Your task to perform on an android device: turn smart compose on in the gmail app Image 0: 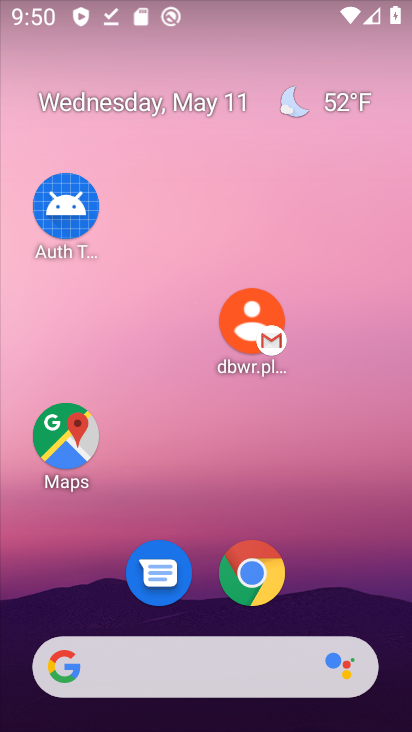
Step 0: drag from (349, 601) to (153, 82)
Your task to perform on an android device: turn smart compose on in the gmail app Image 1: 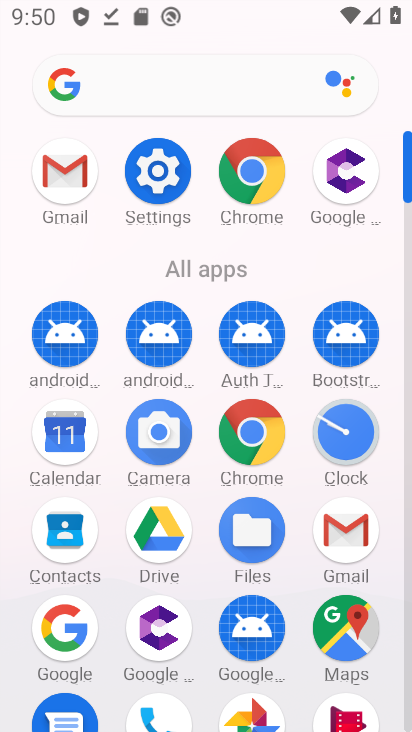
Step 1: click (351, 533)
Your task to perform on an android device: turn smart compose on in the gmail app Image 2: 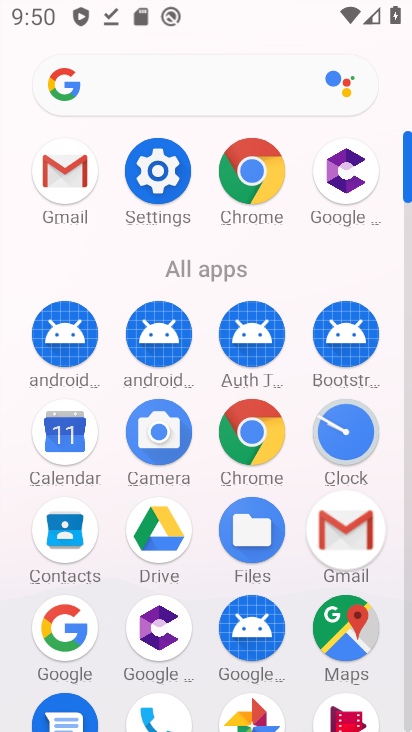
Step 2: click (349, 528)
Your task to perform on an android device: turn smart compose on in the gmail app Image 3: 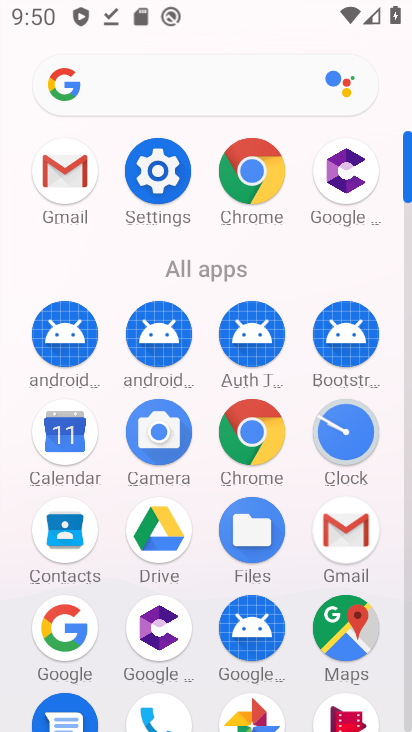
Step 3: click (349, 519)
Your task to perform on an android device: turn smart compose on in the gmail app Image 4: 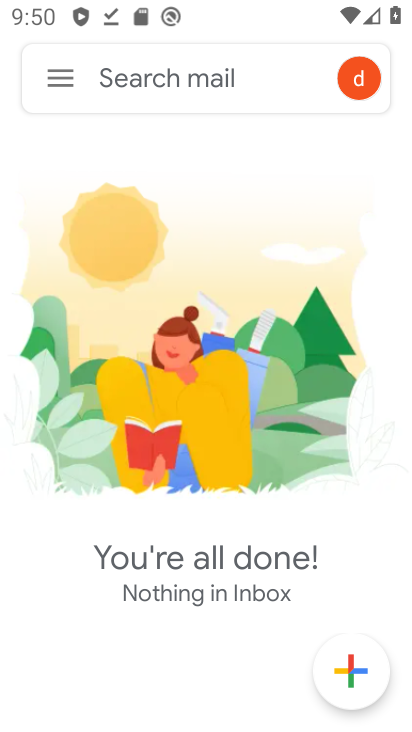
Step 4: click (339, 517)
Your task to perform on an android device: turn smart compose on in the gmail app Image 5: 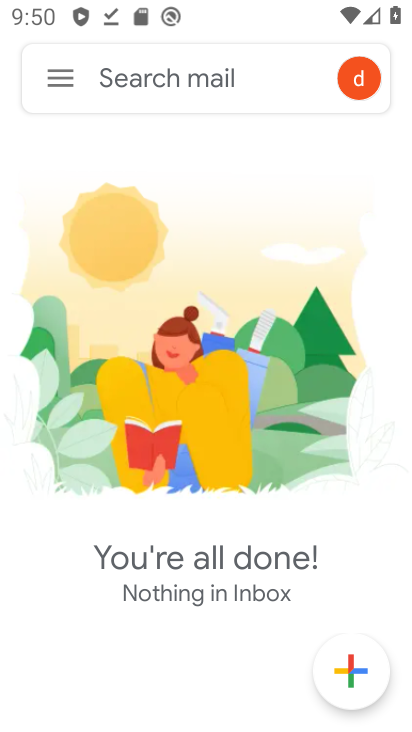
Step 5: click (62, 68)
Your task to perform on an android device: turn smart compose on in the gmail app Image 6: 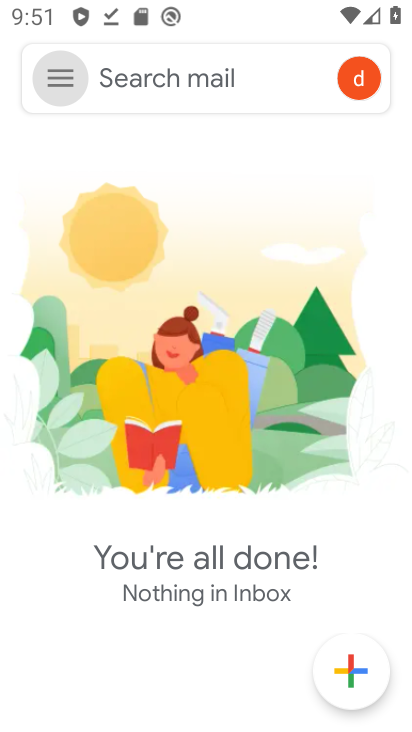
Step 6: click (62, 74)
Your task to perform on an android device: turn smart compose on in the gmail app Image 7: 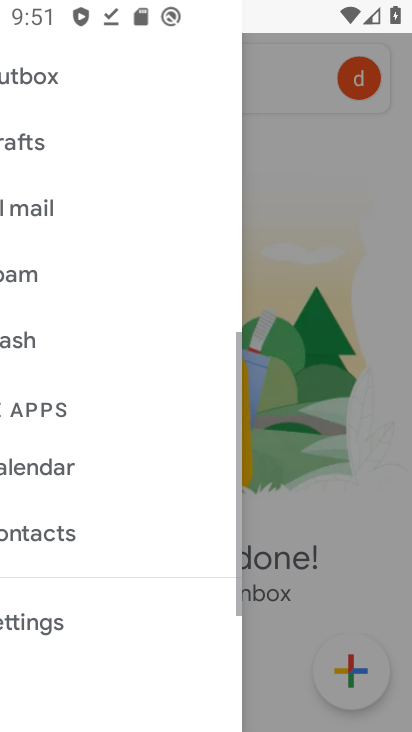
Step 7: click (62, 74)
Your task to perform on an android device: turn smart compose on in the gmail app Image 8: 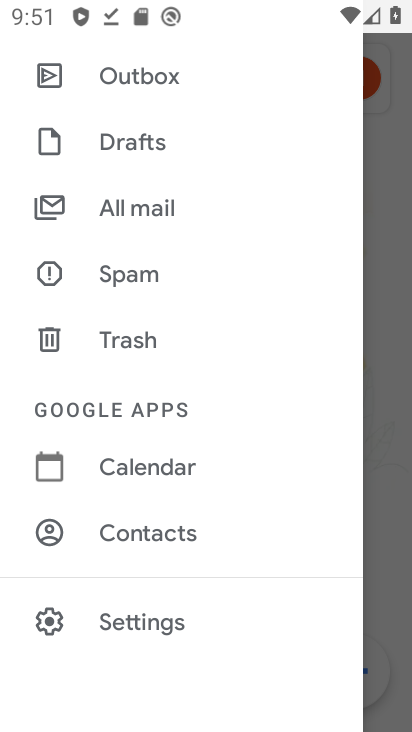
Step 8: drag from (198, 498) to (193, 74)
Your task to perform on an android device: turn smart compose on in the gmail app Image 9: 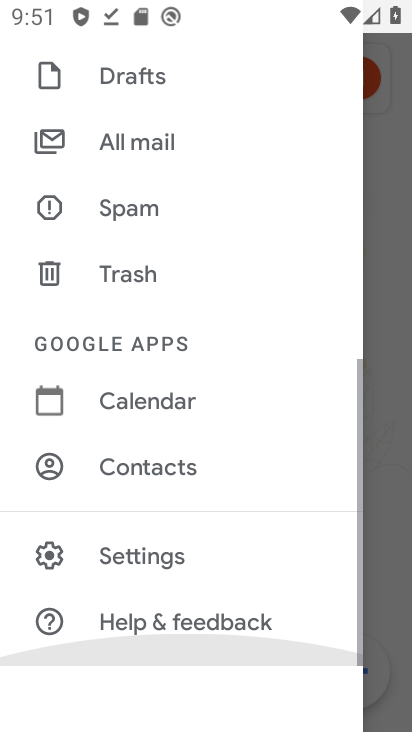
Step 9: click (136, 621)
Your task to perform on an android device: turn smart compose on in the gmail app Image 10: 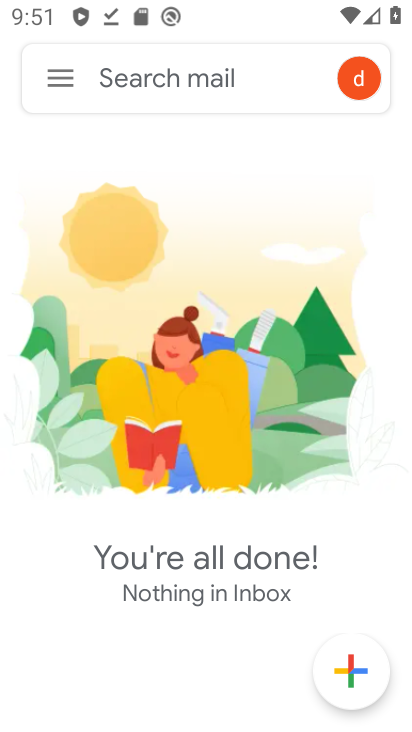
Step 10: click (135, 538)
Your task to perform on an android device: turn smart compose on in the gmail app Image 11: 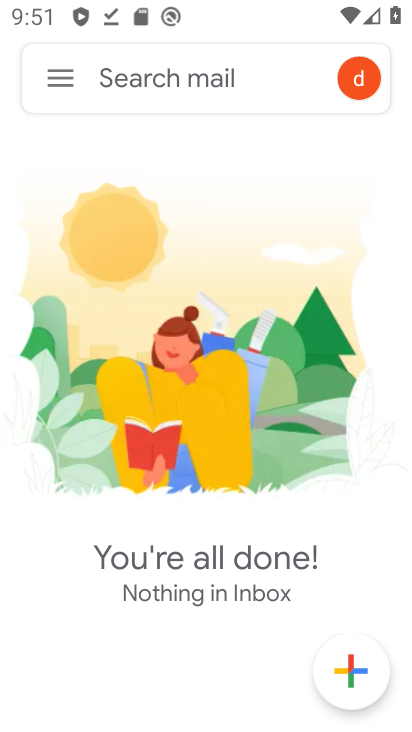
Step 11: click (135, 538)
Your task to perform on an android device: turn smart compose on in the gmail app Image 12: 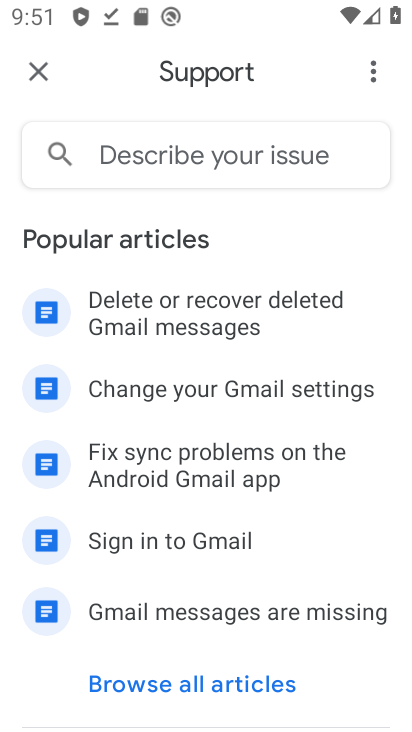
Step 12: click (39, 69)
Your task to perform on an android device: turn smart compose on in the gmail app Image 13: 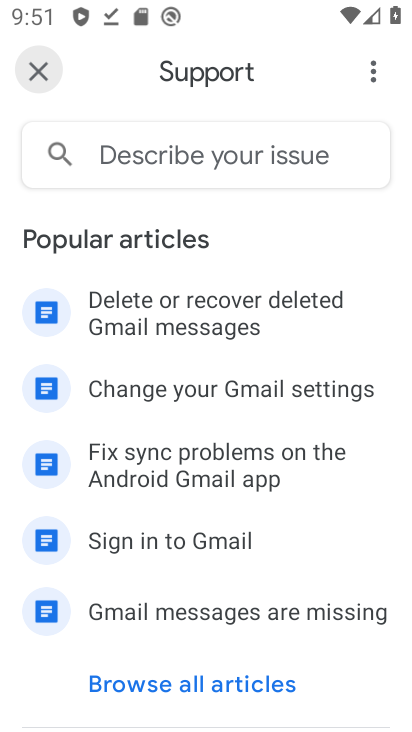
Step 13: click (39, 69)
Your task to perform on an android device: turn smart compose on in the gmail app Image 14: 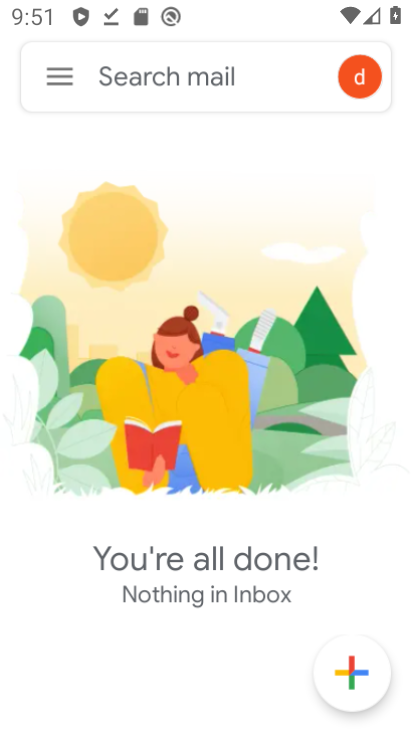
Step 14: click (39, 69)
Your task to perform on an android device: turn smart compose on in the gmail app Image 15: 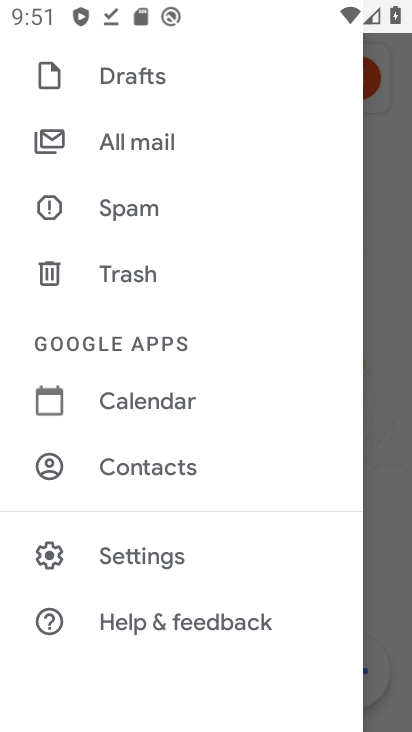
Step 15: click (132, 554)
Your task to perform on an android device: turn smart compose on in the gmail app Image 16: 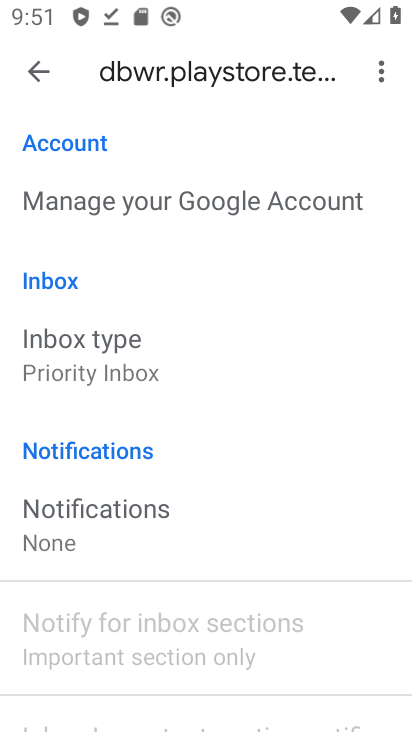
Step 16: drag from (144, 468) to (58, 2)
Your task to perform on an android device: turn smart compose on in the gmail app Image 17: 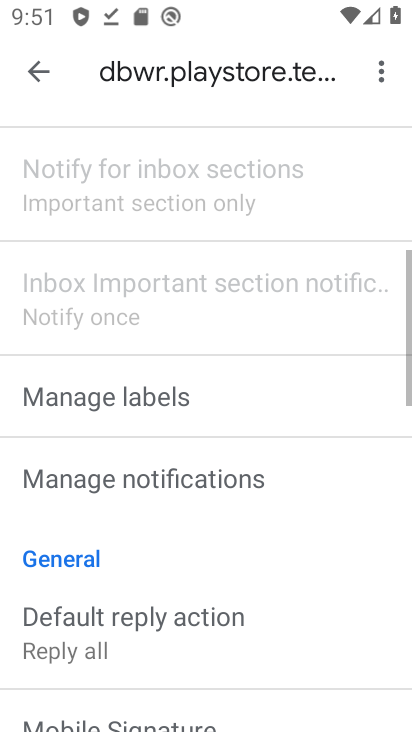
Step 17: drag from (153, 344) to (162, 63)
Your task to perform on an android device: turn smart compose on in the gmail app Image 18: 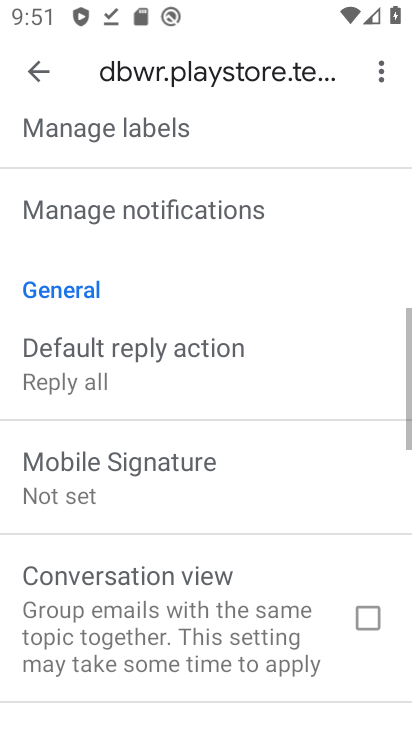
Step 18: drag from (242, 399) to (229, 149)
Your task to perform on an android device: turn smart compose on in the gmail app Image 19: 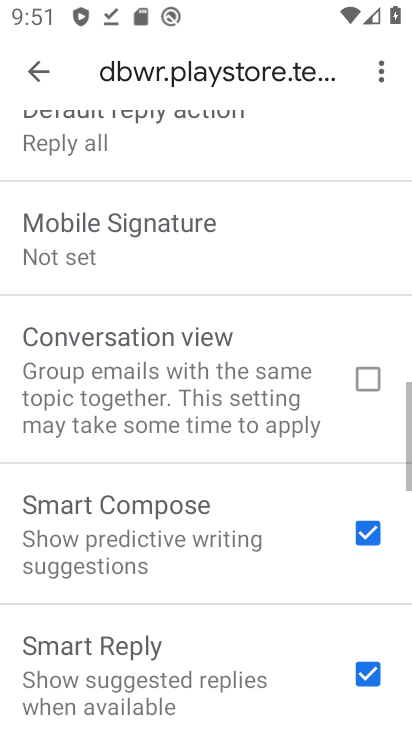
Step 19: drag from (191, 416) to (172, 154)
Your task to perform on an android device: turn smart compose on in the gmail app Image 20: 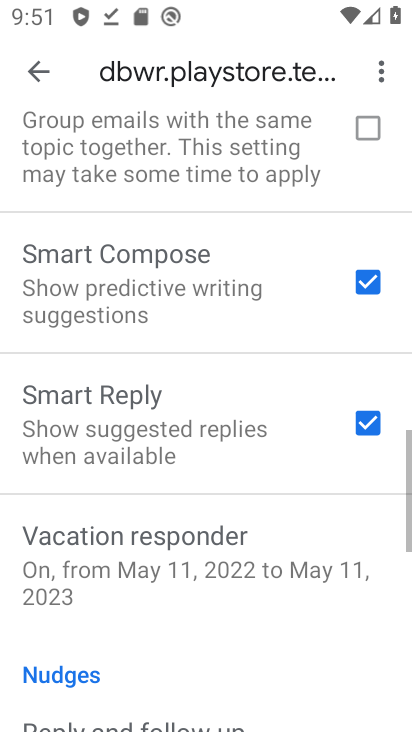
Step 20: drag from (213, 496) to (175, 111)
Your task to perform on an android device: turn smart compose on in the gmail app Image 21: 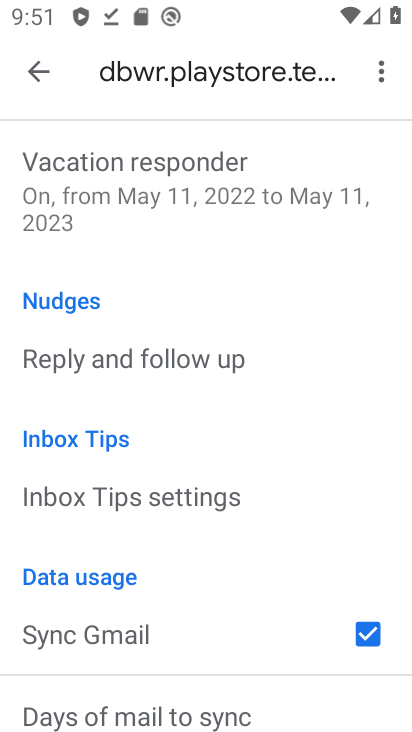
Step 21: click (173, 55)
Your task to perform on an android device: turn smart compose on in the gmail app Image 22: 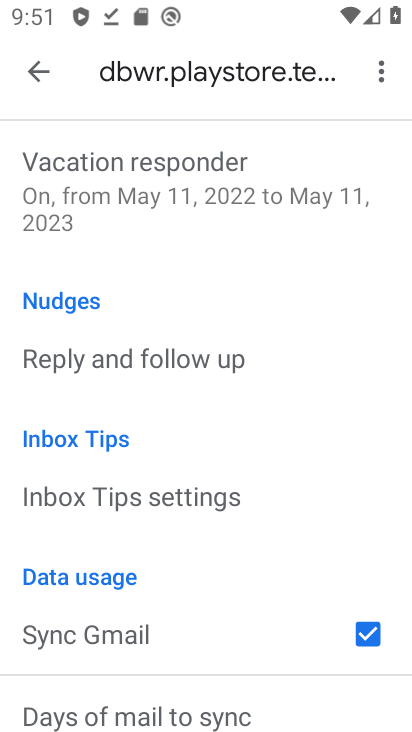
Step 22: task complete